Your task to perform on an android device: set the timer Image 0: 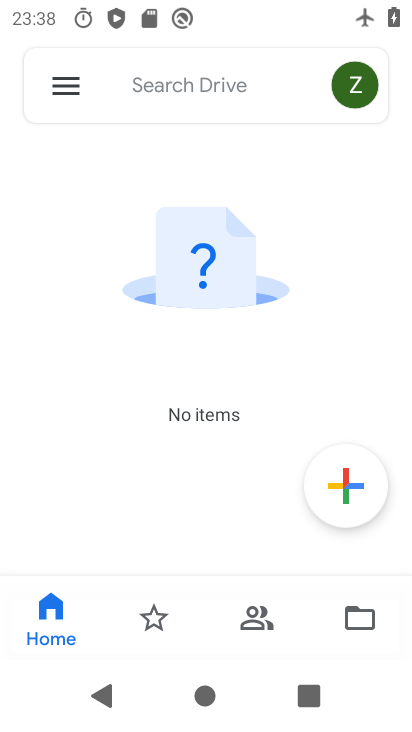
Step 0: press home button
Your task to perform on an android device: set the timer Image 1: 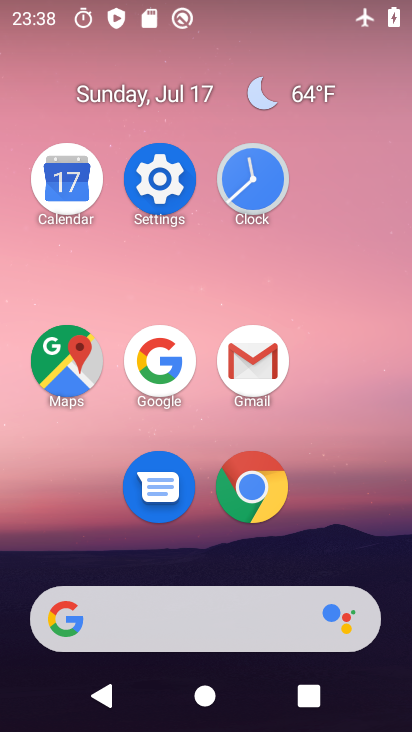
Step 1: click (247, 191)
Your task to perform on an android device: set the timer Image 2: 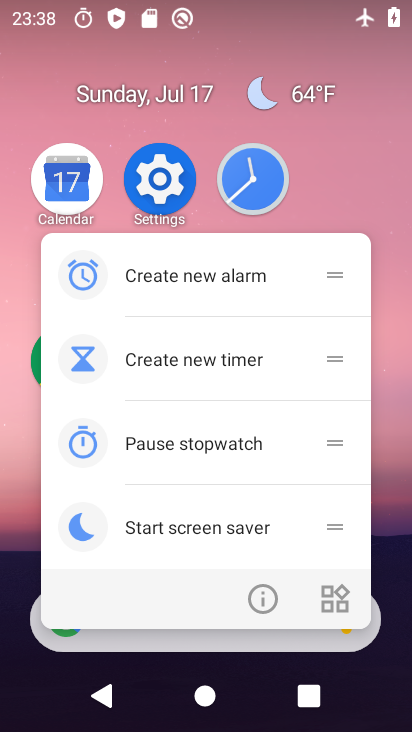
Step 2: click (247, 191)
Your task to perform on an android device: set the timer Image 3: 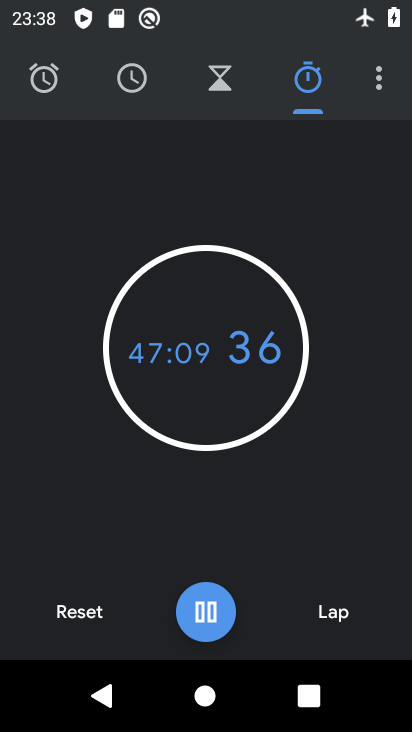
Step 3: click (90, 615)
Your task to perform on an android device: set the timer Image 4: 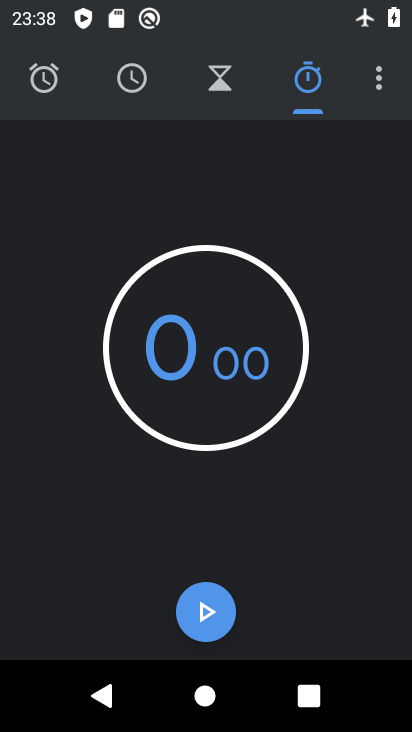
Step 4: click (209, 597)
Your task to perform on an android device: set the timer Image 5: 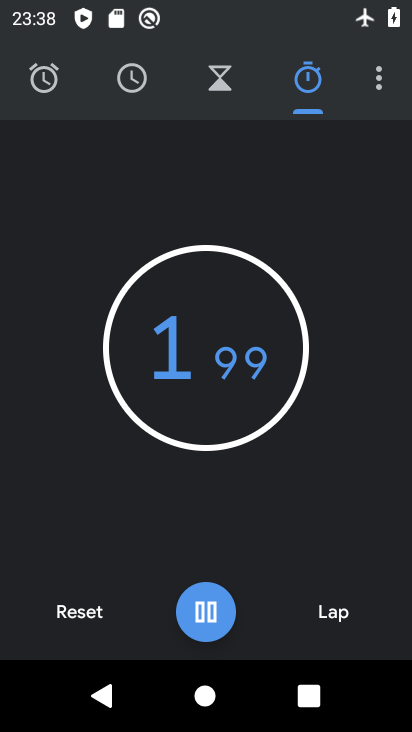
Step 5: task complete